Your task to perform on an android device: allow notifications from all sites in the chrome app Image 0: 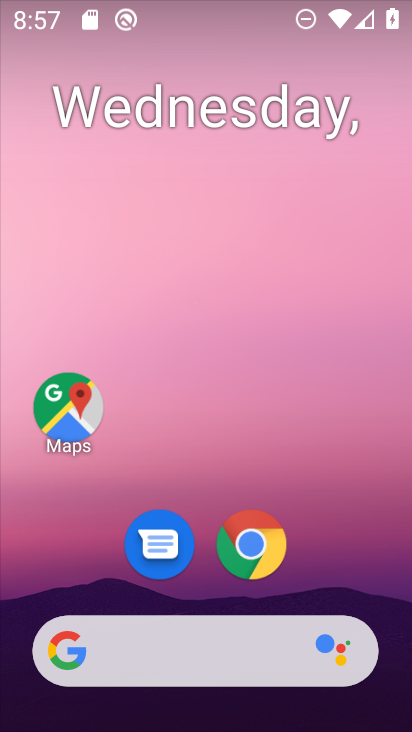
Step 0: click (251, 542)
Your task to perform on an android device: allow notifications from all sites in the chrome app Image 1: 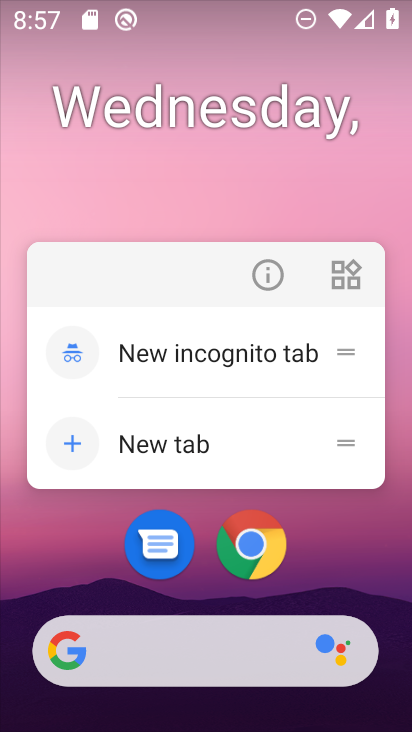
Step 1: click (250, 541)
Your task to perform on an android device: allow notifications from all sites in the chrome app Image 2: 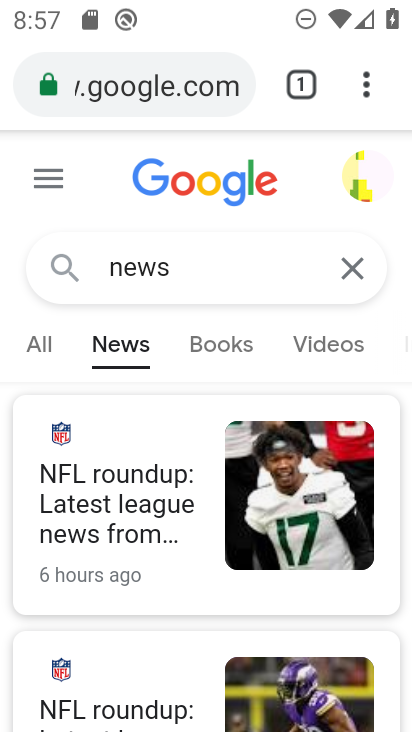
Step 2: drag from (377, 87) to (220, 597)
Your task to perform on an android device: allow notifications from all sites in the chrome app Image 3: 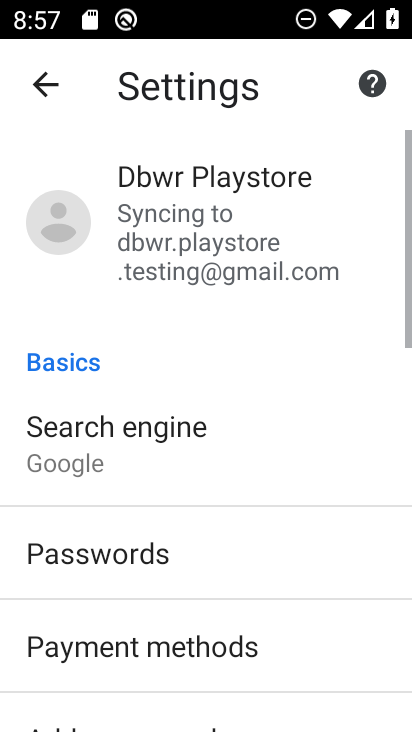
Step 3: drag from (224, 579) to (315, 175)
Your task to perform on an android device: allow notifications from all sites in the chrome app Image 4: 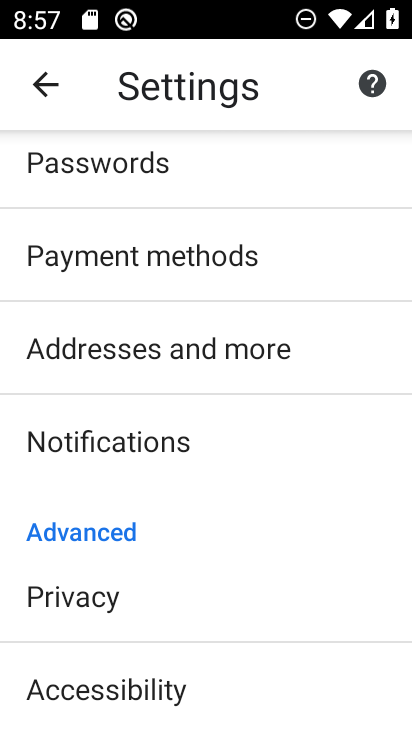
Step 4: drag from (172, 601) to (251, 298)
Your task to perform on an android device: allow notifications from all sites in the chrome app Image 5: 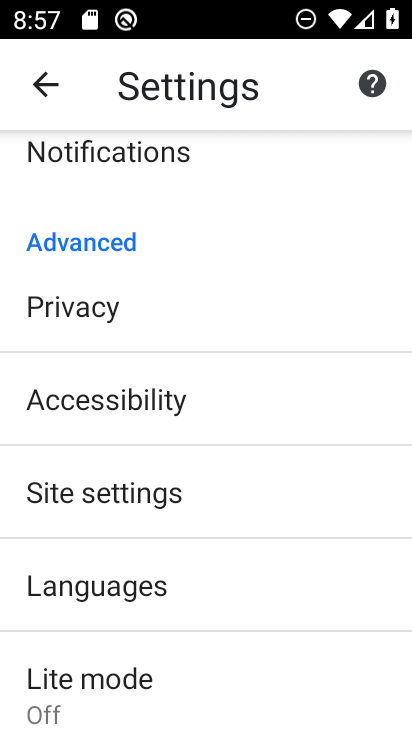
Step 5: click (150, 160)
Your task to perform on an android device: allow notifications from all sites in the chrome app Image 6: 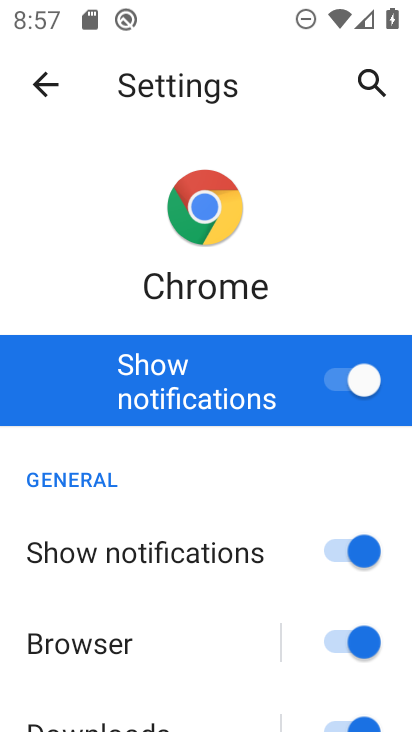
Step 6: task complete